Your task to perform on an android device: Open Google Chrome and click the shortcut for Amazon.com Image 0: 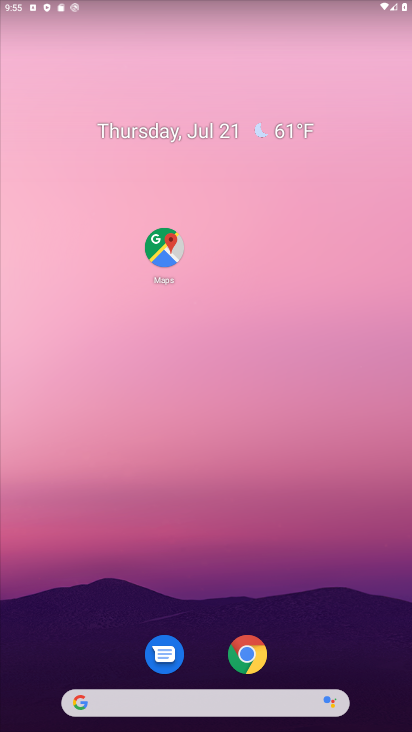
Step 0: click (105, 702)
Your task to perform on an android device: Open Google Chrome and click the shortcut for Amazon.com Image 1: 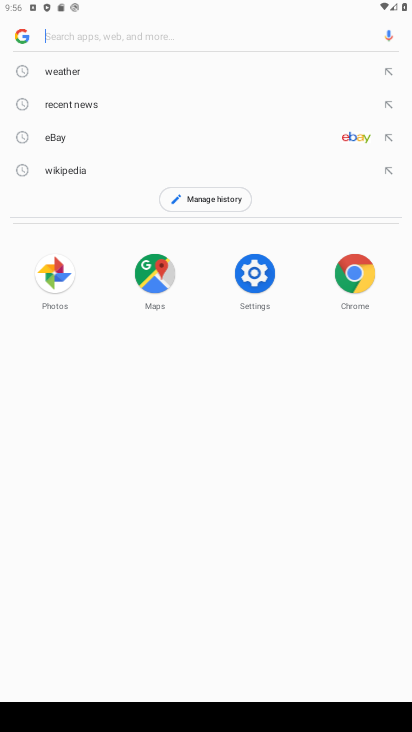
Step 1: task complete